Your task to perform on an android device: change timer sound Image 0: 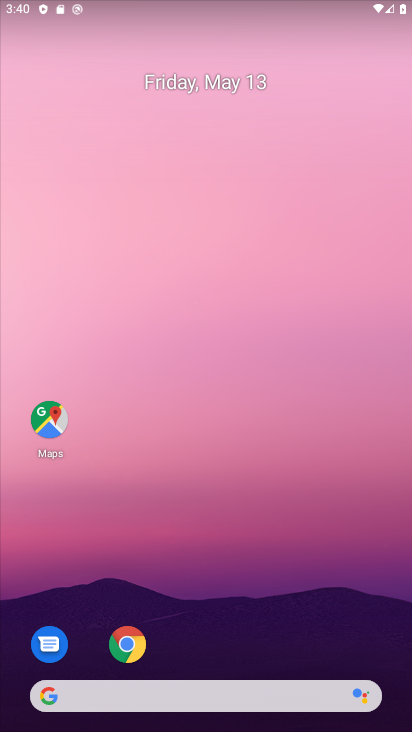
Step 0: drag from (263, 612) to (203, 209)
Your task to perform on an android device: change timer sound Image 1: 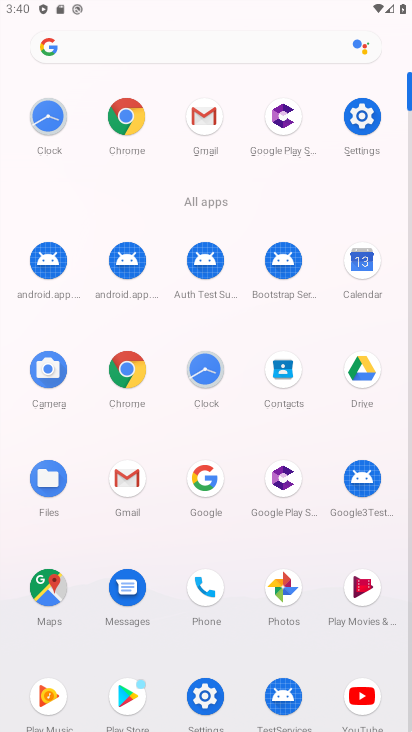
Step 1: click (214, 689)
Your task to perform on an android device: change timer sound Image 2: 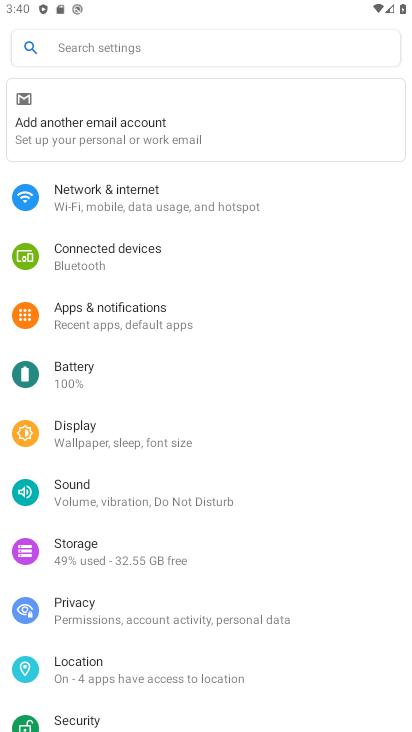
Step 2: click (131, 484)
Your task to perform on an android device: change timer sound Image 3: 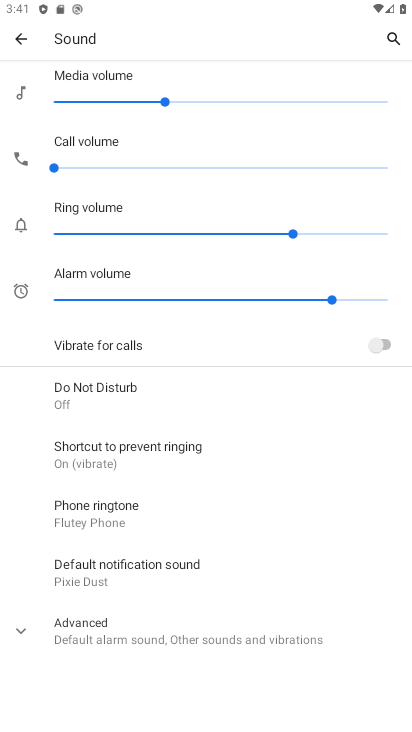
Step 3: drag from (230, 473) to (183, 295)
Your task to perform on an android device: change timer sound Image 4: 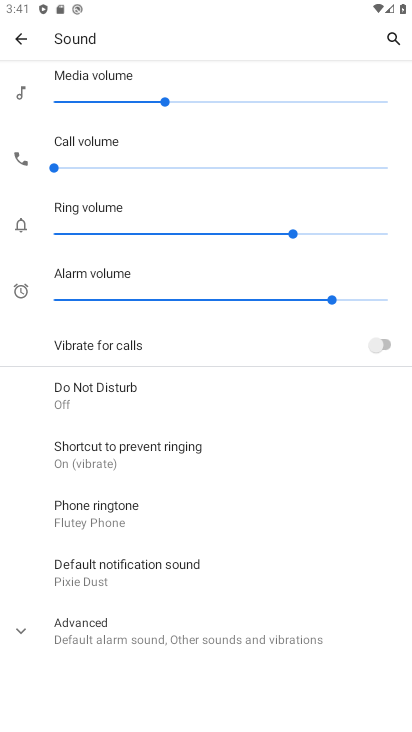
Step 4: press home button
Your task to perform on an android device: change timer sound Image 5: 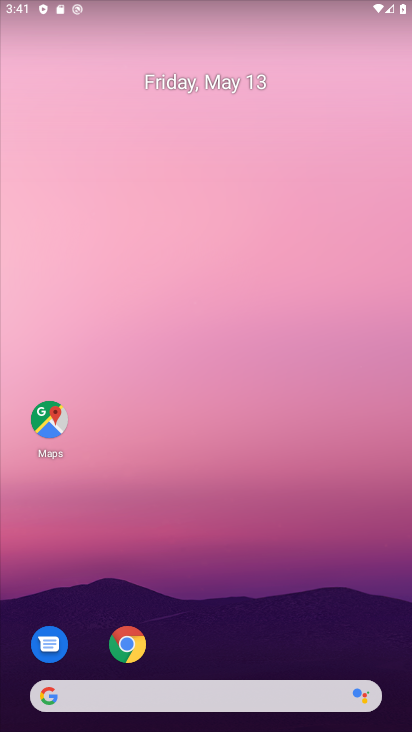
Step 5: drag from (298, 657) to (231, 144)
Your task to perform on an android device: change timer sound Image 6: 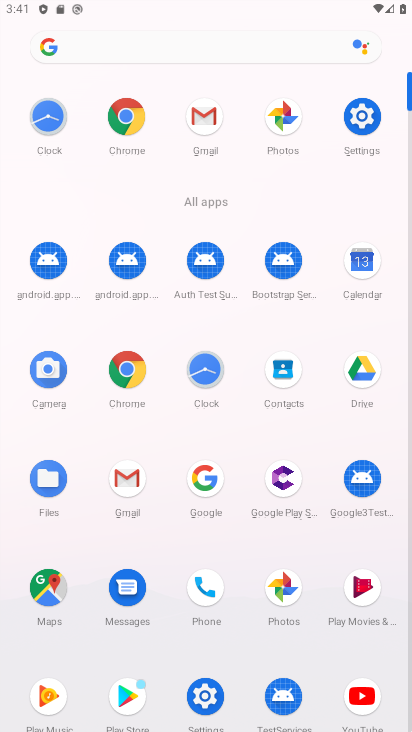
Step 6: click (192, 374)
Your task to perform on an android device: change timer sound Image 7: 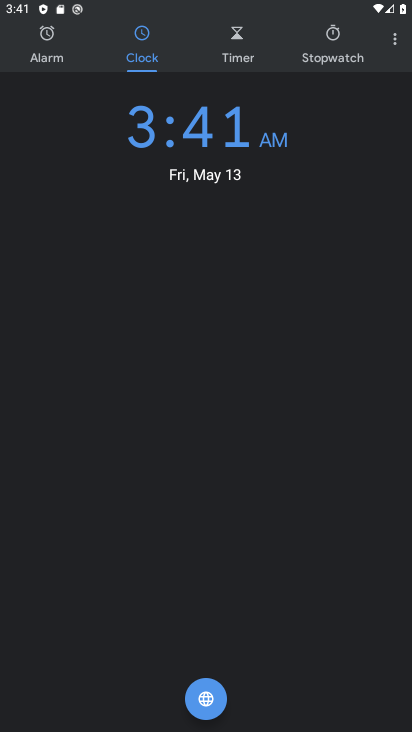
Step 7: click (395, 42)
Your task to perform on an android device: change timer sound Image 8: 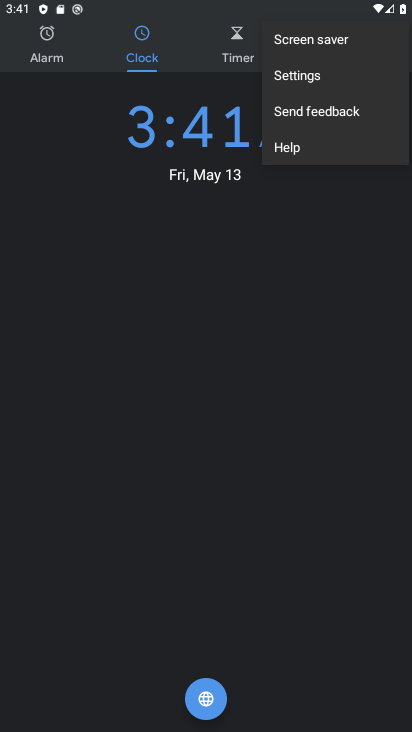
Step 8: click (323, 78)
Your task to perform on an android device: change timer sound Image 9: 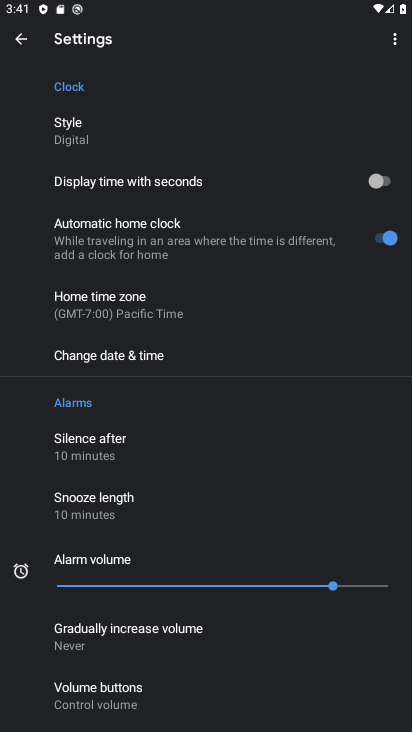
Step 9: drag from (293, 423) to (173, 213)
Your task to perform on an android device: change timer sound Image 10: 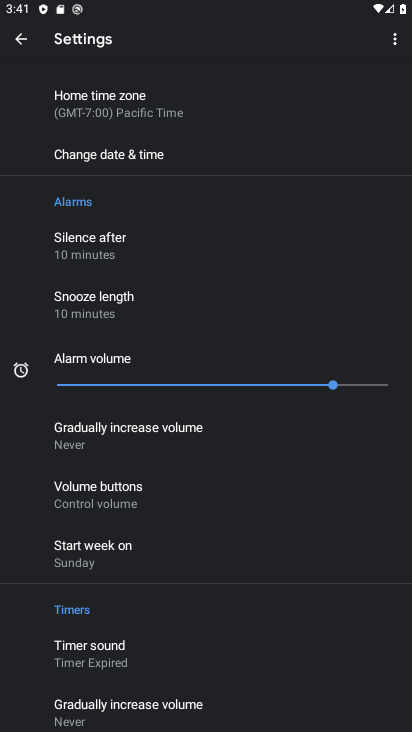
Step 10: click (184, 642)
Your task to perform on an android device: change timer sound Image 11: 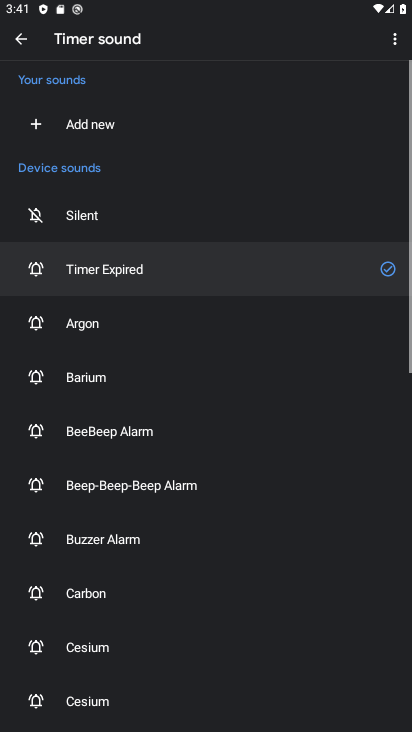
Step 11: click (251, 386)
Your task to perform on an android device: change timer sound Image 12: 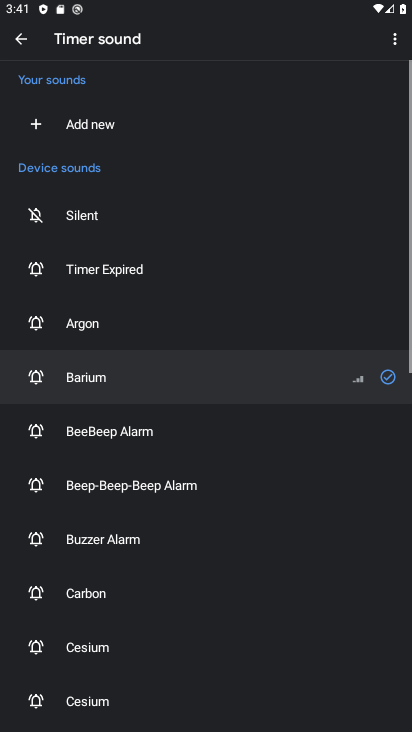
Step 12: task complete